Your task to perform on an android device: What's on my calendar today? Image 0: 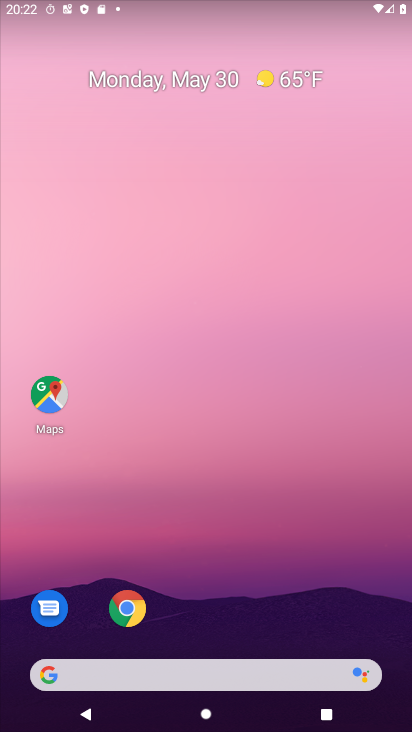
Step 0: drag from (212, 636) to (216, 260)
Your task to perform on an android device: What's on my calendar today? Image 1: 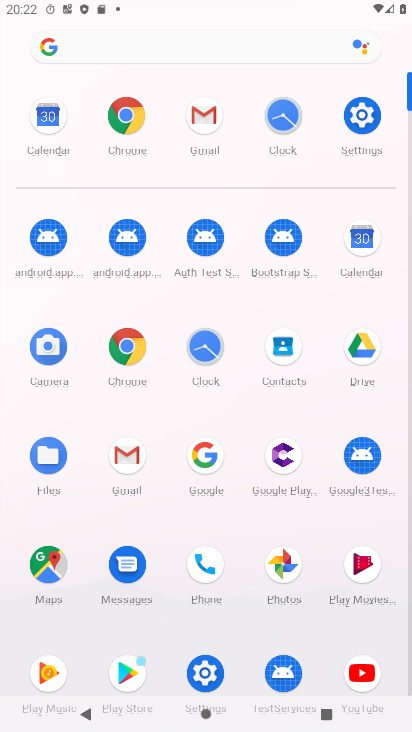
Step 1: click (352, 234)
Your task to perform on an android device: What's on my calendar today? Image 2: 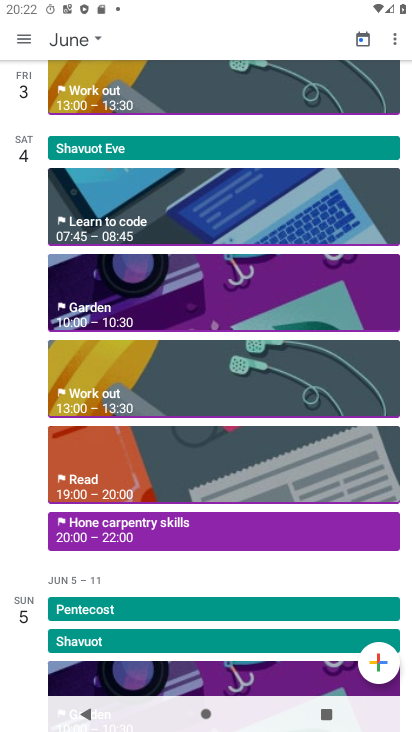
Step 2: click (91, 38)
Your task to perform on an android device: What's on my calendar today? Image 3: 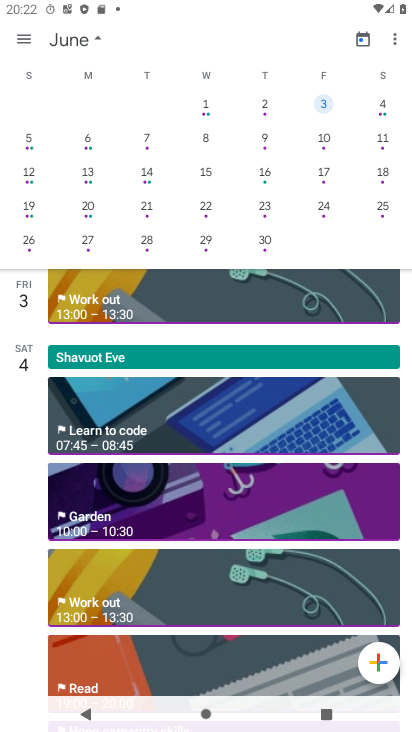
Step 3: drag from (145, 147) to (345, 153)
Your task to perform on an android device: What's on my calendar today? Image 4: 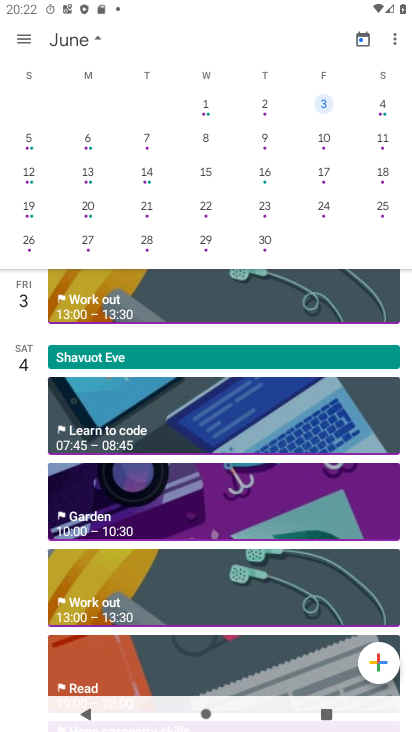
Step 4: drag from (53, 144) to (388, 132)
Your task to perform on an android device: What's on my calendar today? Image 5: 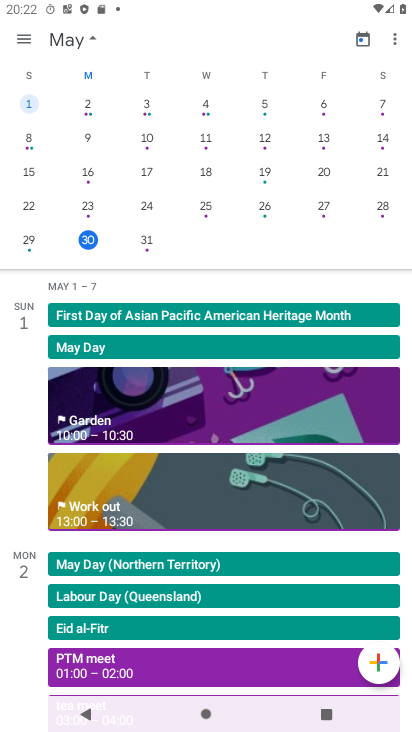
Step 5: click (142, 242)
Your task to perform on an android device: What's on my calendar today? Image 6: 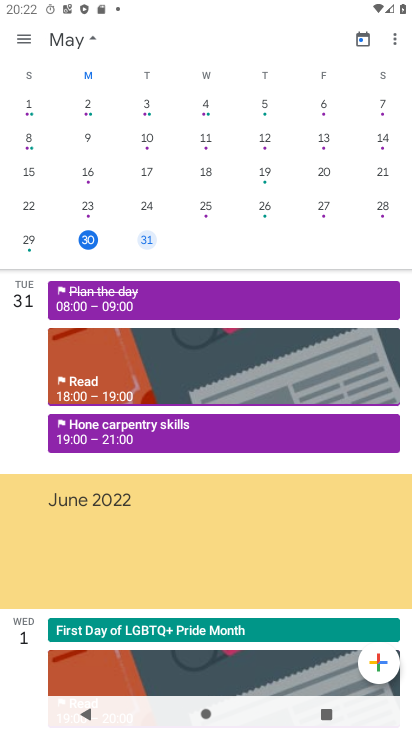
Step 6: click (92, 238)
Your task to perform on an android device: What's on my calendar today? Image 7: 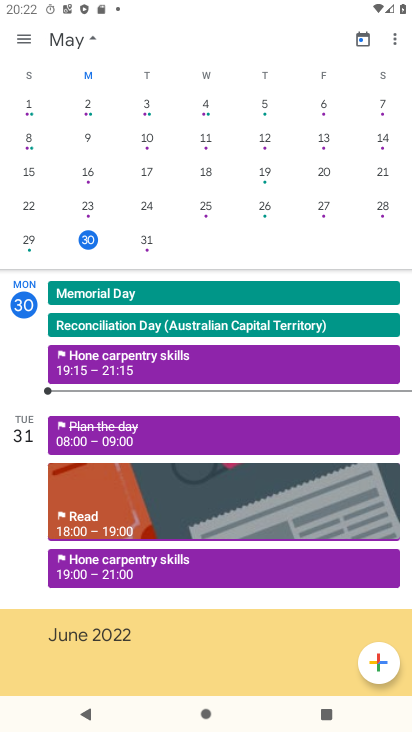
Step 7: task complete